Your task to perform on an android device: Open Yahoo.com Image 0: 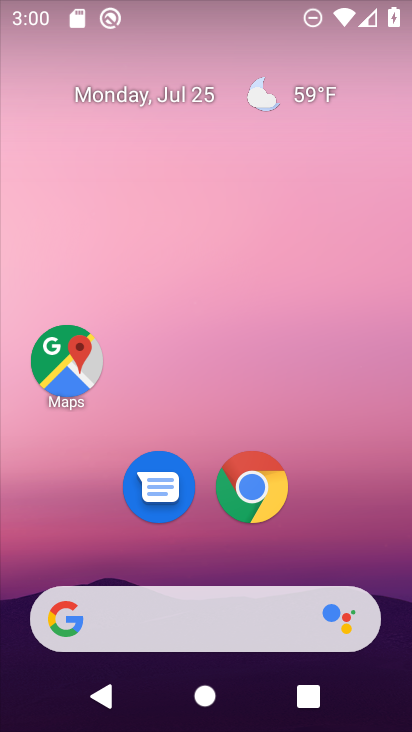
Step 0: click (255, 489)
Your task to perform on an android device: Open Yahoo.com Image 1: 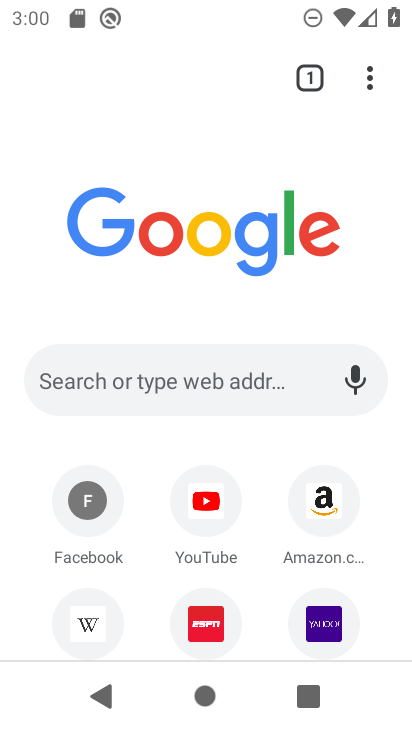
Step 1: click (322, 615)
Your task to perform on an android device: Open Yahoo.com Image 2: 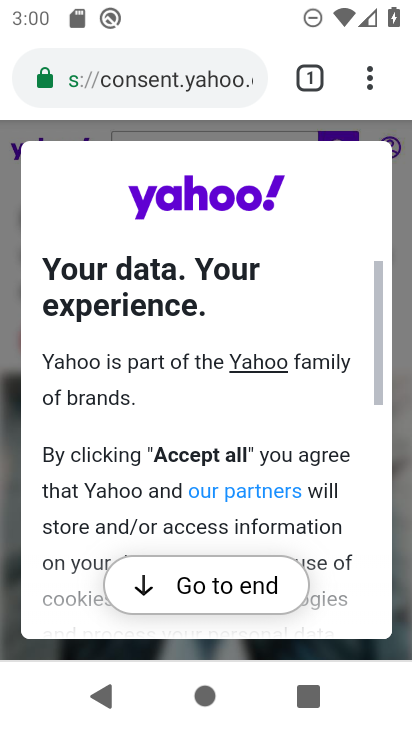
Step 2: task complete